Your task to perform on an android device: change the upload size in google photos Image 0: 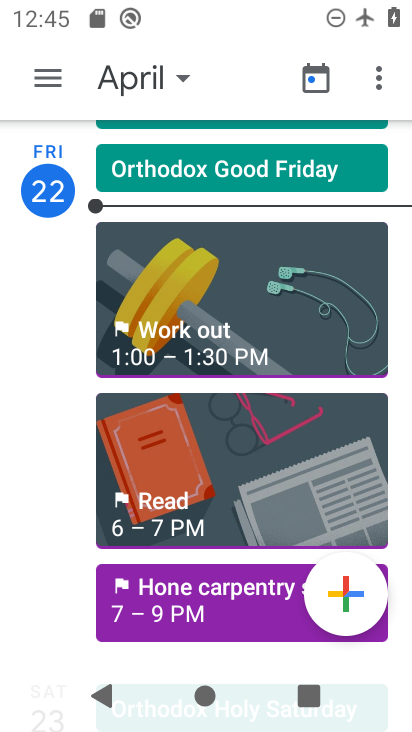
Step 0: press home button
Your task to perform on an android device: change the upload size in google photos Image 1: 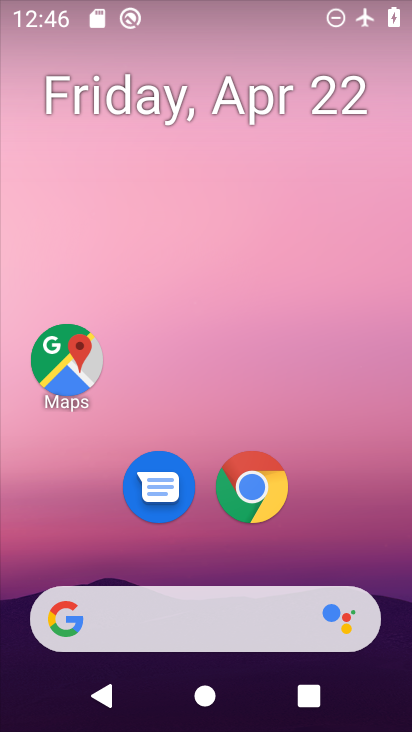
Step 1: drag from (353, 524) to (332, 94)
Your task to perform on an android device: change the upload size in google photos Image 2: 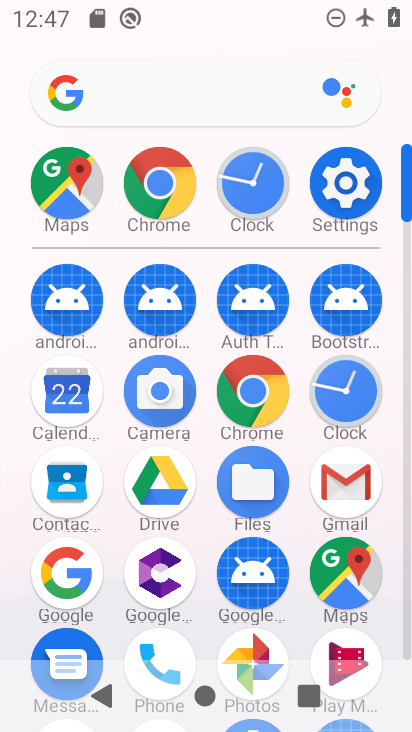
Step 2: click (244, 639)
Your task to perform on an android device: change the upload size in google photos Image 3: 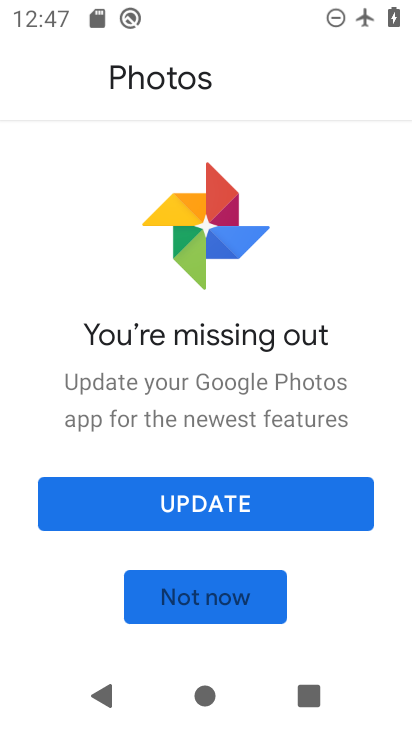
Step 3: click (236, 590)
Your task to perform on an android device: change the upload size in google photos Image 4: 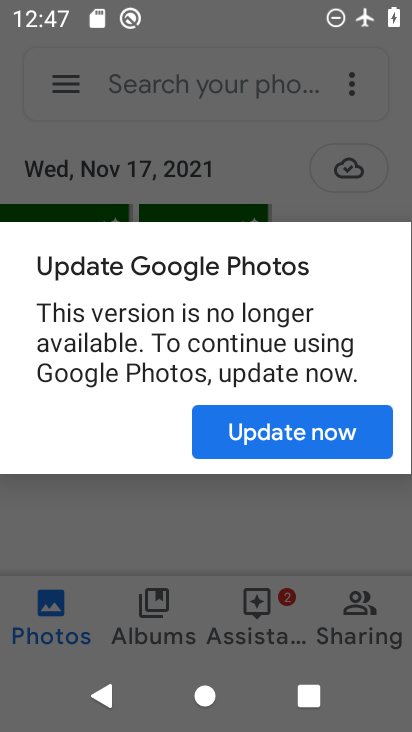
Step 4: click (327, 420)
Your task to perform on an android device: change the upload size in google photos Image 5: 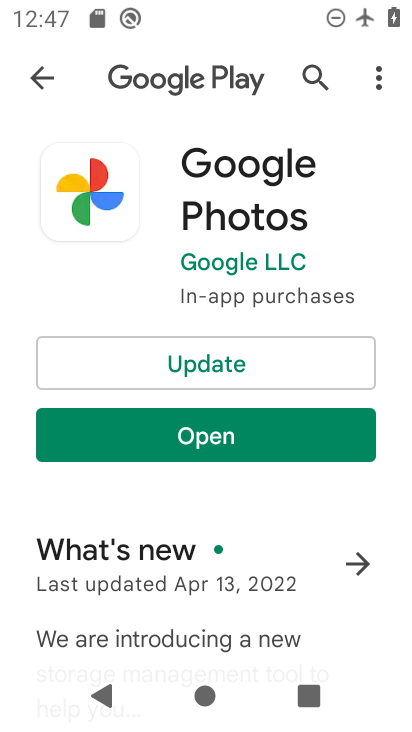
Step 5: press back button
Your task to perform on an android device: change the upload size in google photos Image 6: 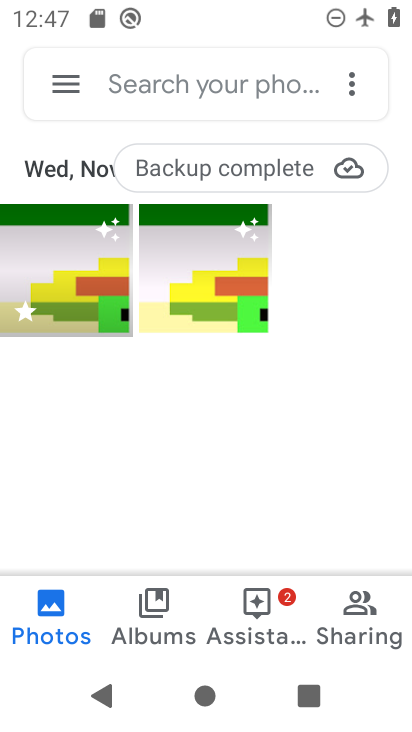
Step 6: click (76, 86)
Your task to perform on an android device: change the upload size in google photos Image 7: 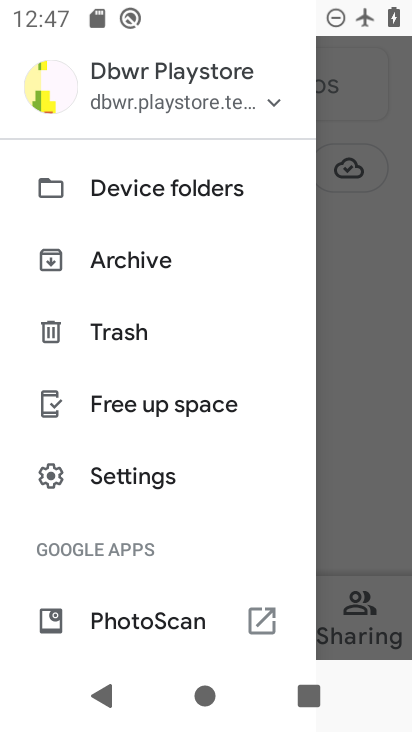
Step 7: click (153, 477)
Your task to perform on an android device: change the upload size in google photos Image 8: 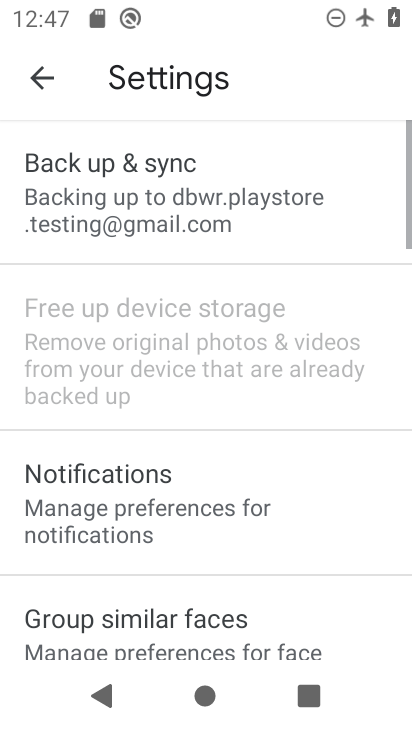
Step 8: drag from (215, 565) to (306, 137)
Your task to perform on an android device: change the upload size in google photos Image 9: 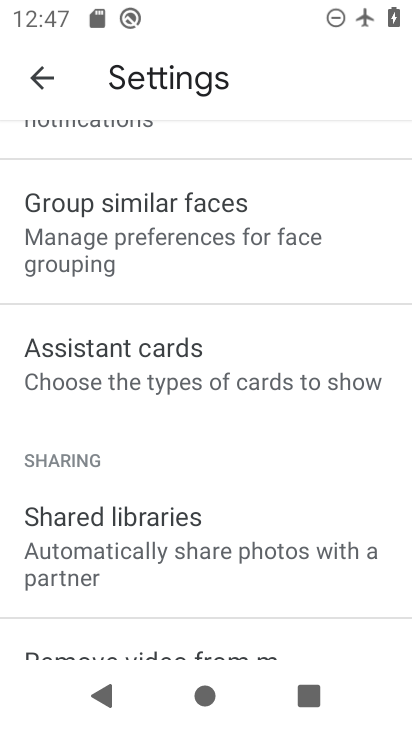
Step 9: drag from (242, 470) to (295, 75)
Your task to perform on an android device: change the upload size in google photos Image 10: 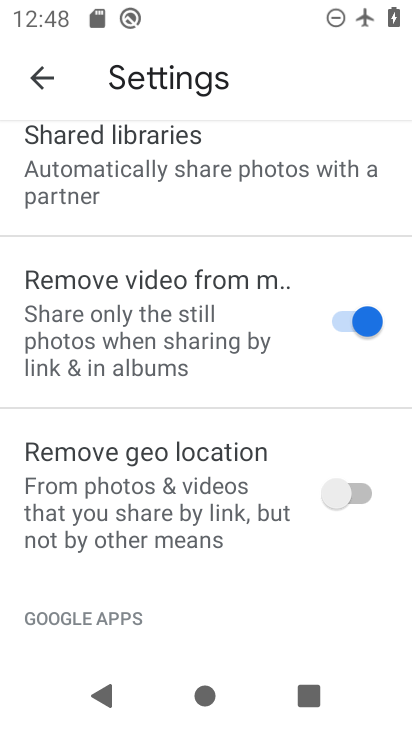
Step 10: drag from (172, 536) to (333, 101)
Your task to perform on an android device: change the upload size in google photos Image 11: 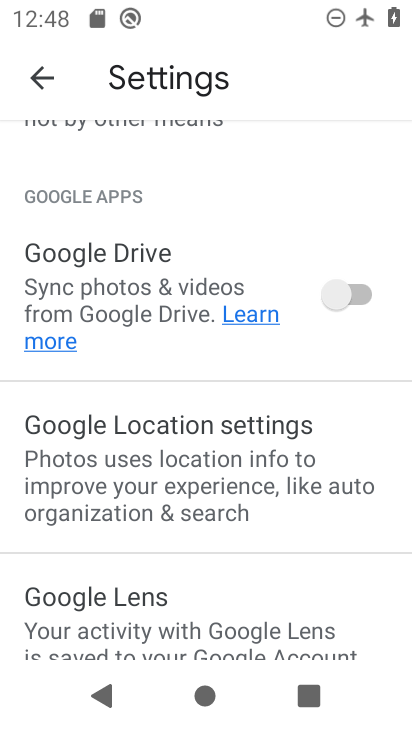
Step 11: drag from (174, 560) to (279, 195)
Your task to perform on an android device: change the upload size in google photos Image 12: 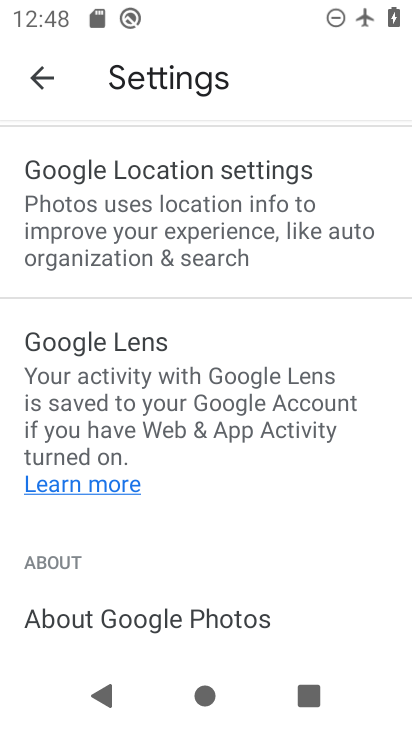
Step 12: click (29, 72)
Your task to perform on an android device: change the upload size in google photos Image 13: 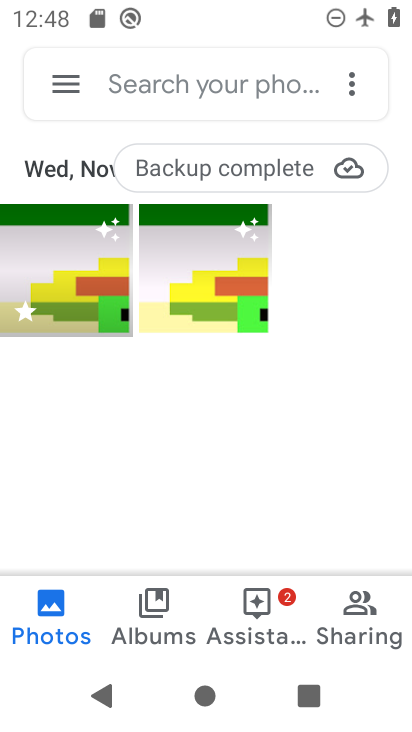
Step 13: click (80, 66)
Your task to perform on an android device: change the upload size in google photos Image 14: 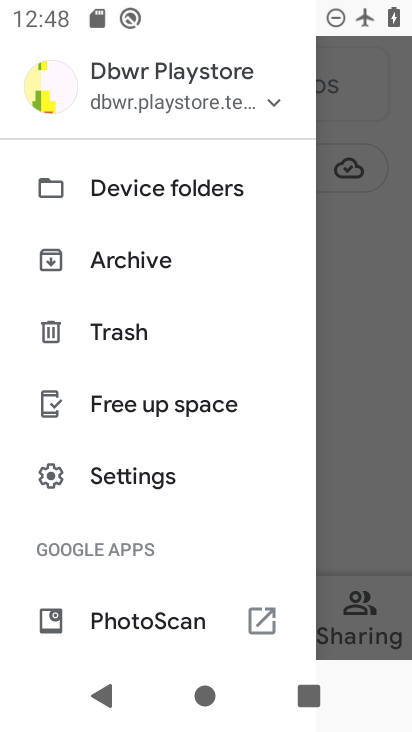
Step 14: drag from (141, 568) to (167, 439)
Your task to perform on an android device: change the upload size in google photos Image 15: 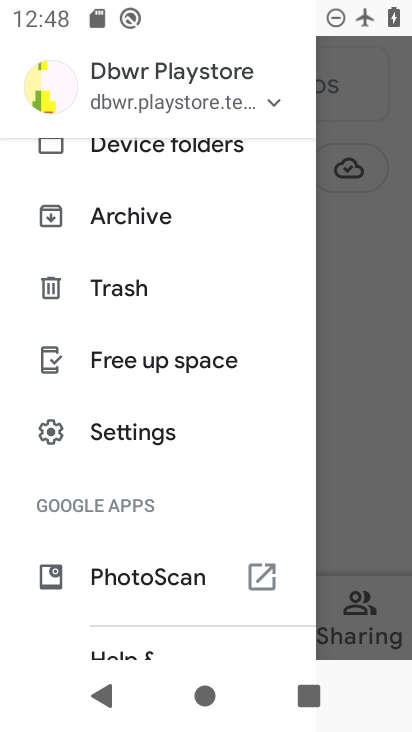
Step 15: click (165, 433)
Your task to perform on an android device: change the upload size in google photos Image 16: 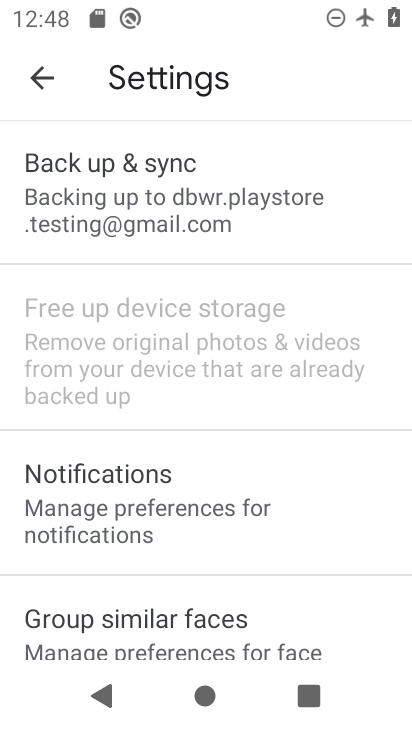
Step 16: click (197, 199)
Your task to perform on an android device: change the upload size in google photos Image 17: 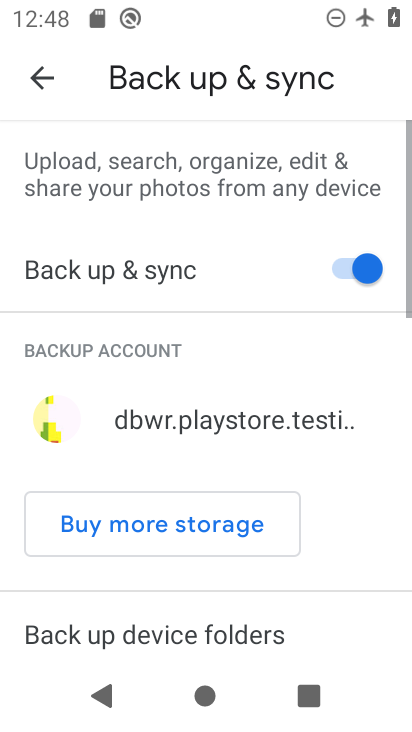
Step 17: drag from (193, 607) to (253, 194)
Your task to perform on an android device: change the upload size in google photos Image 18: 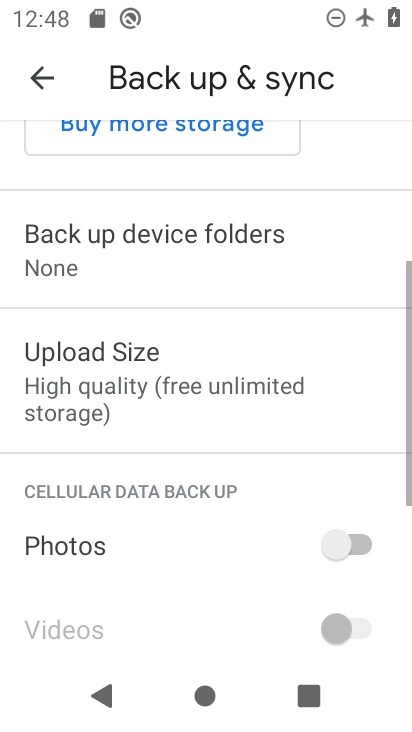
Step 18: click (192, 377)
Your task to perform on an android device: change the upload size in google photos Image 19: 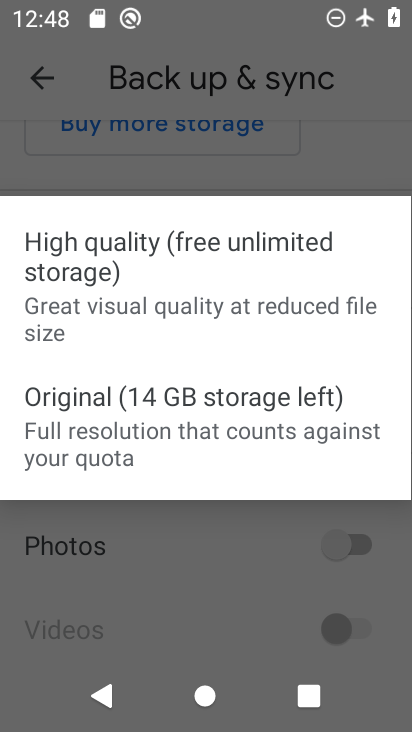
Step 19: click (133, 404)
Your task to perform on an android device: change the upload size in google photos Image 20: 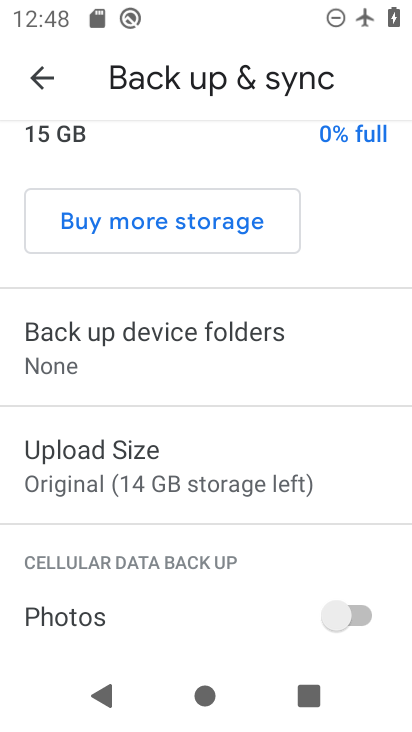
Step 20: task complete